Your task to perform on an android device: toggle notifications settings in the gmail app Image 0: 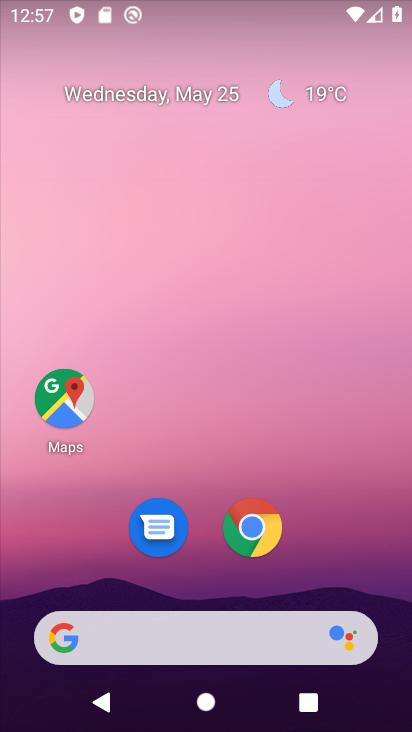
Step 0: drag from (366, 552) to (362, 122)
Your task to perform on an android device: toggle notifications settings in the gmail app Image 1: 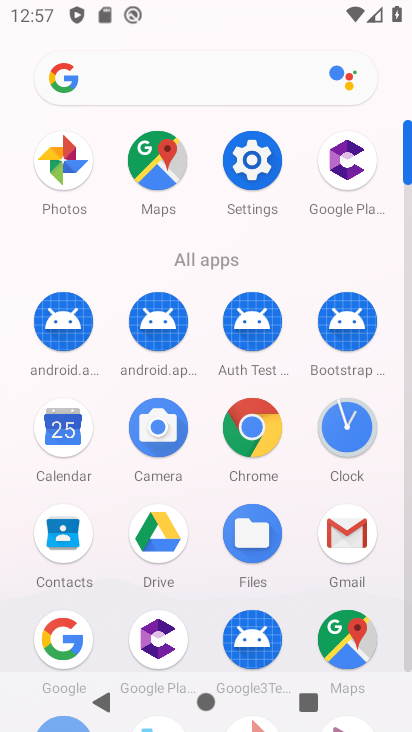
Step 1: click (355, 541)
Your task to perform on an android device: toggle notifications settings in the gmail app Image 2: 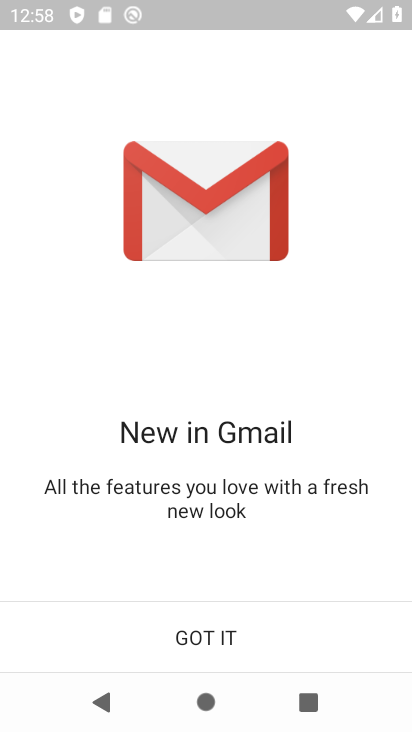
Step 2: click (276, 627)
Your task to perform on an android device: toggle notifications settings in the gmail app Image 3: 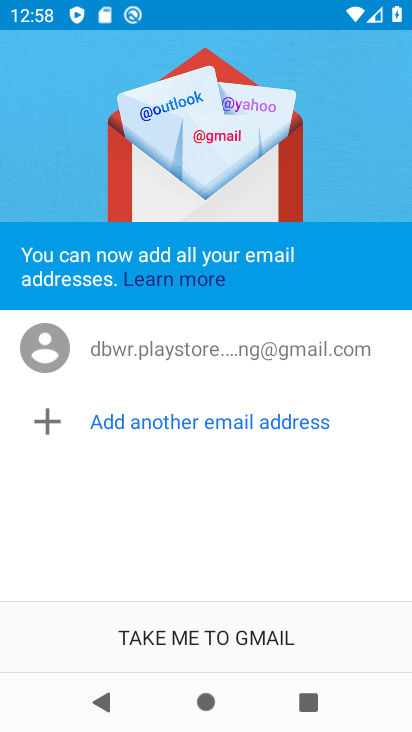
Step 3: click (276, 627)
Your task to perform on an android device: toggle notifications settings in the gmail app Image 4: 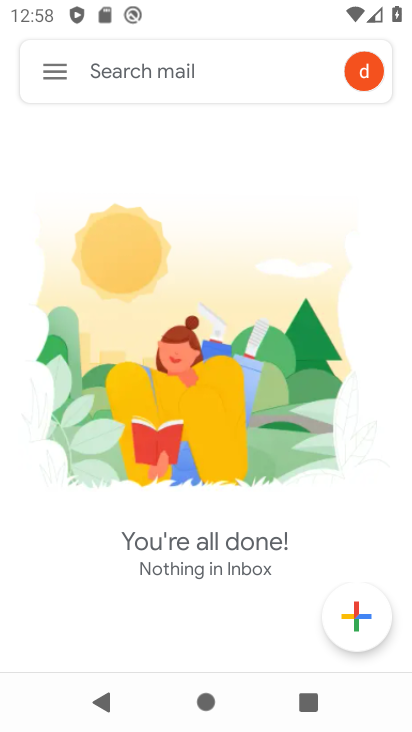
Step 4: click (59, 76)
Your task to perform on an android device: toggle notifications settings in the gmail app Image 5: 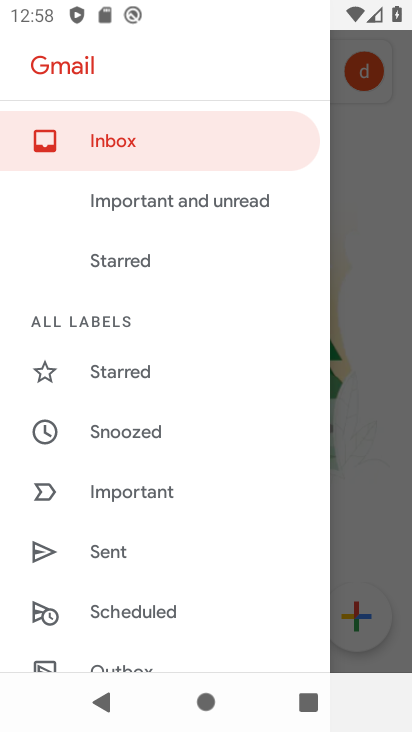
Step 5: drag from (231, 522) to (237, 412)
Your task to perform on an android device: toggle notifications settings in the gmail app Image 6: 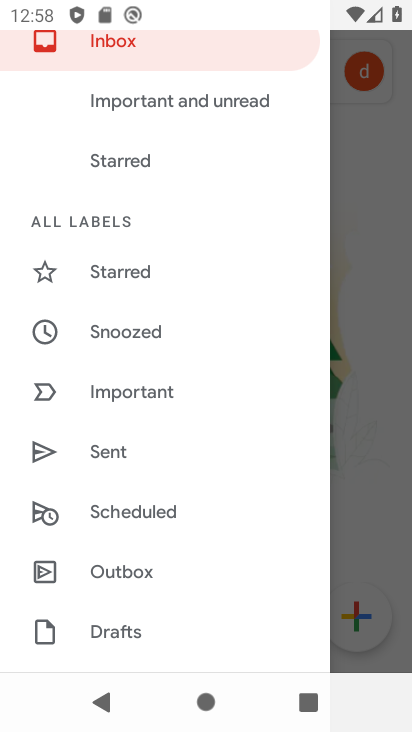
Step 6: drag from (249, 583) to (245, 498)
Your task to perform on an android device: toggle notifications settings in the gmail app Image 7: 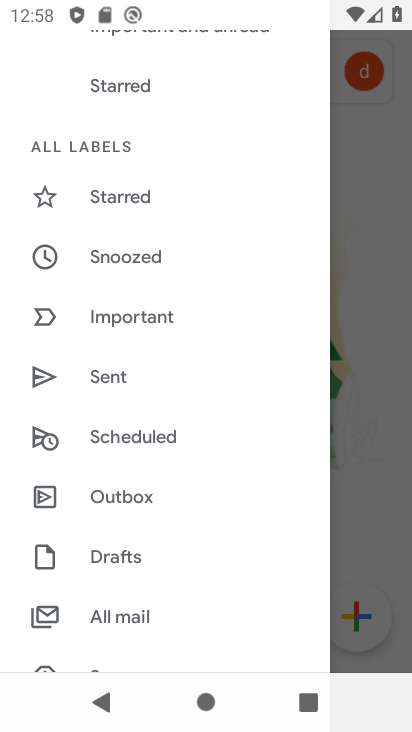
Step 7: drag from (258, 592) to (262, 501)
Your task to perform on an android device: toggle notifications settings in the gmail app Image 8: 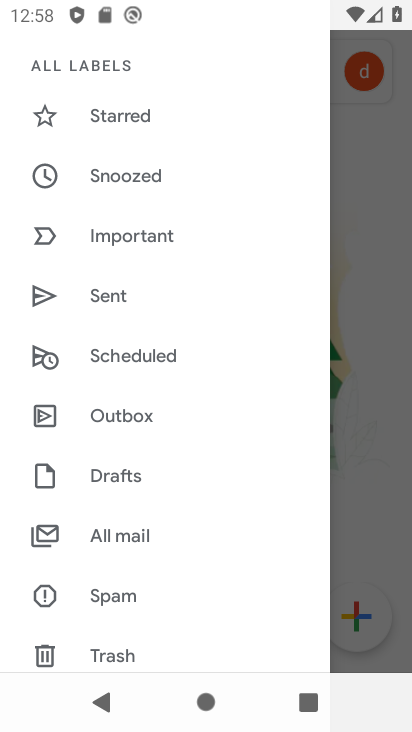
Step 8: drag from (237, 606) to (236, 514)
Your task to perform on an android device: toggle notifications settings in the gmail app Image 9: 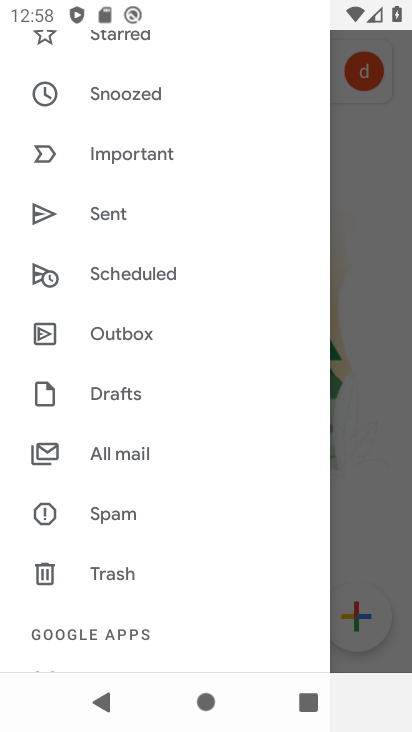
Step 9: drag from (252, 621) to (243, 522)
Your task to perform on an android device: toggle notifications settings in the gmail app Image 10: 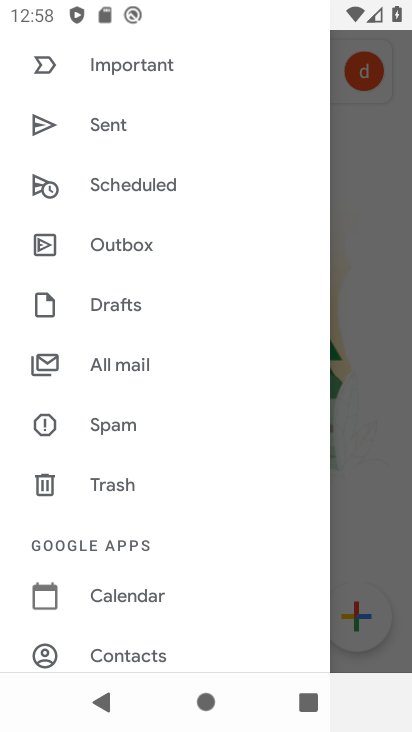
Step 10: drag from (252, 613) to (241, 502)
Your task to perform on an android device: toggle notifications settings in the gmail app Image 11: 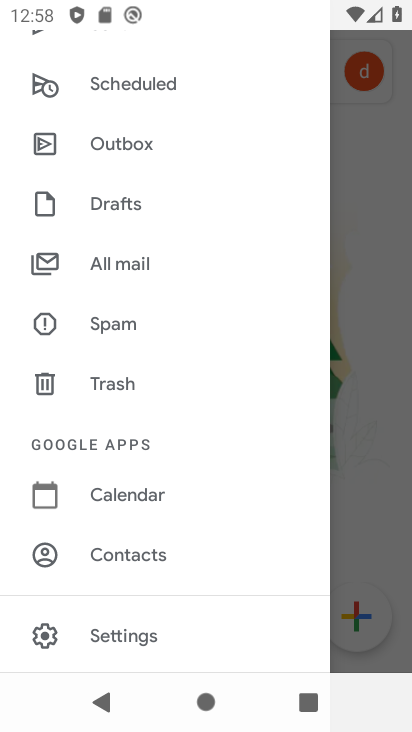
Step 11: drag from (259, 622) to (259, 534)
Your task to perform on an android device: toggle notifications settings in the gmail app Image 12: 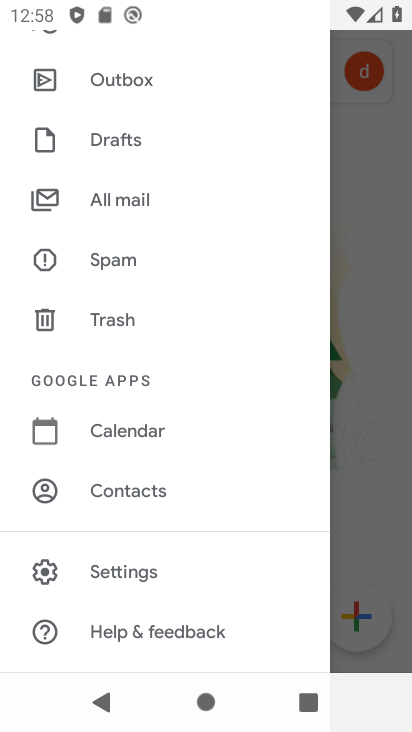
Step 12: drag from (258, 618) to (264, 531)
Your task to perform on an android device: toggle notifications settings in the gmail app Image 13: 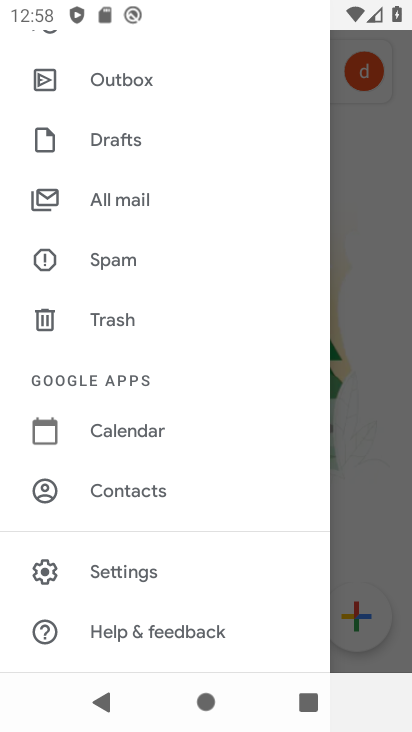
Step 13: drag from (262, 384) to (255, 494)
Your task to perform on an android device: toggle notifications settings in the gmail app Image 14: 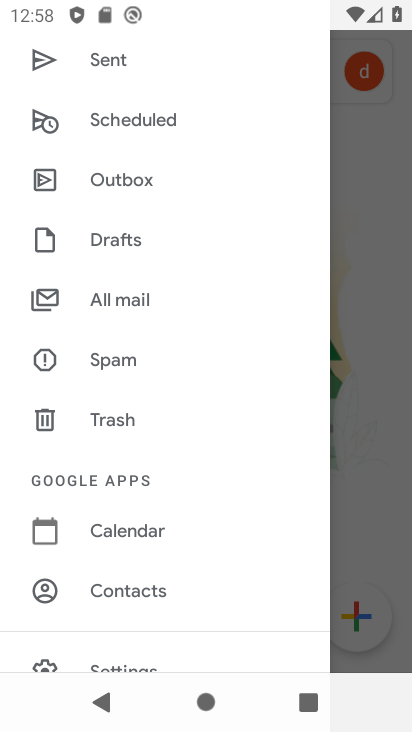
Step 14: drag from (231, 610) to (241, 469)
Your task to perform on an android device: toggle notifications settings in the gmail app Image 15: 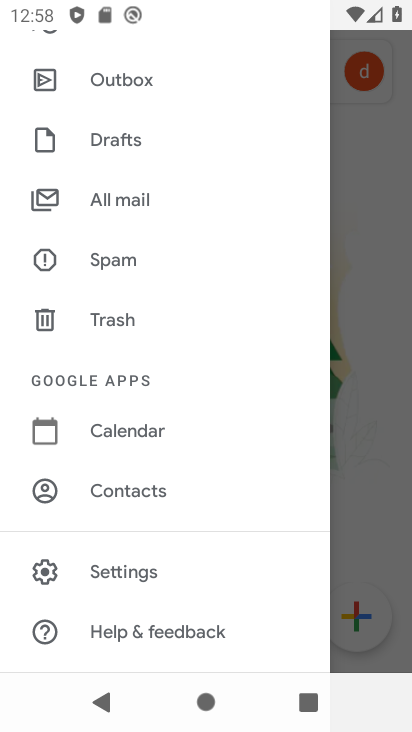
Step 15: click (201, 573)
Your task to perform on an android device: toggle notifications settings in the gmail app Image 16: 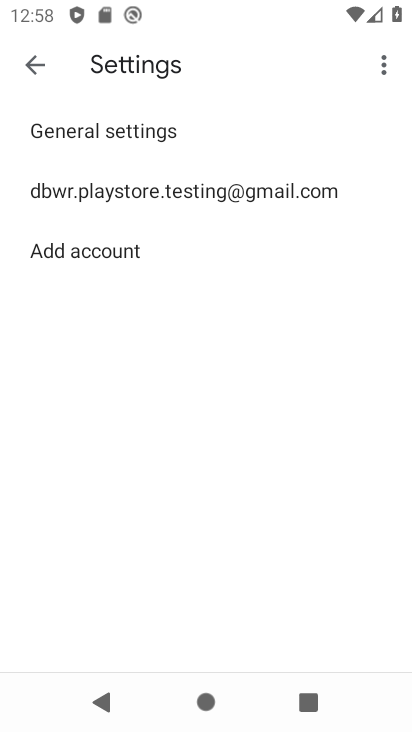
Step 16: click (324, 206)
Your task to perform on an android device: toggle notifications settings in the gmail app Image 17: 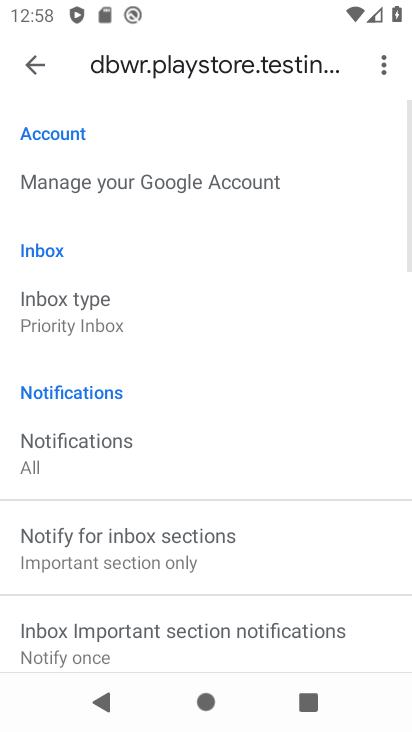
Step 17: drag from (307, 489) to (307, 390)
Your task to perform on an android device: toggle notifications settings in the gmail app Image 18: 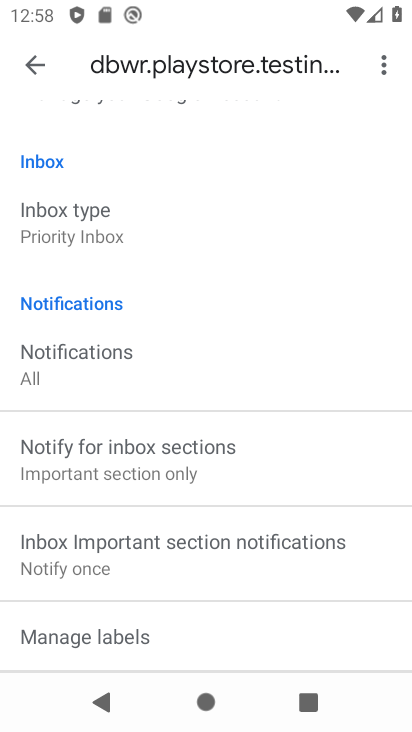
Step 18: drag from (309, 499) to (319, 401)
Your task to perform on an android device: toggle notifications settings in the gmail app Image 19: 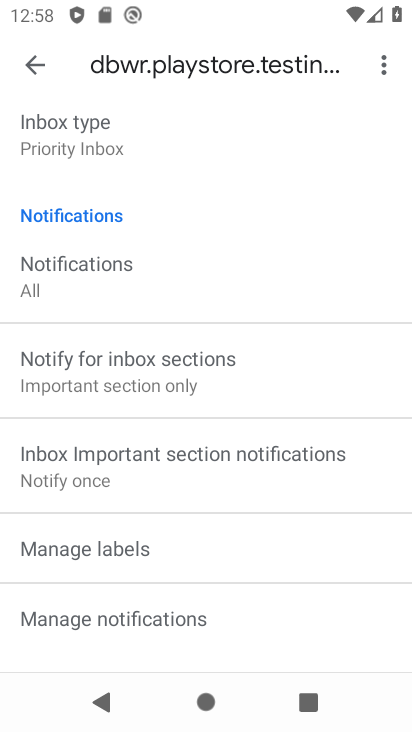
Step 19: drag from (321, 528) to (317, 432)
Your task to perform on an android device: toggle notifications settings in the gmail app Image 20: 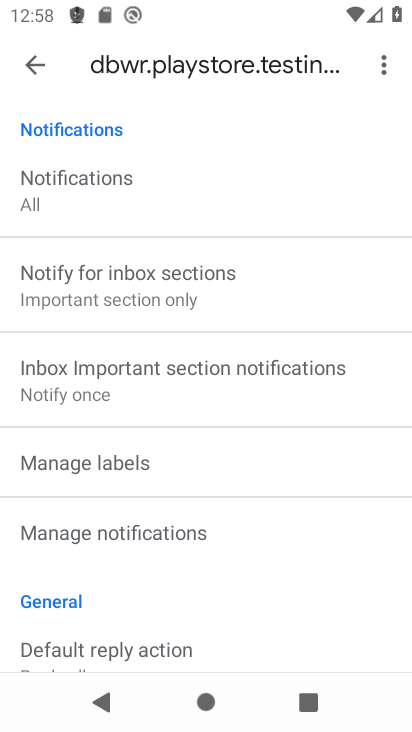
Step 20: drag from (334, 576) to (330, 468)
Your task to perform on an android device: toggle notifications settings in the gmail app Image 21: 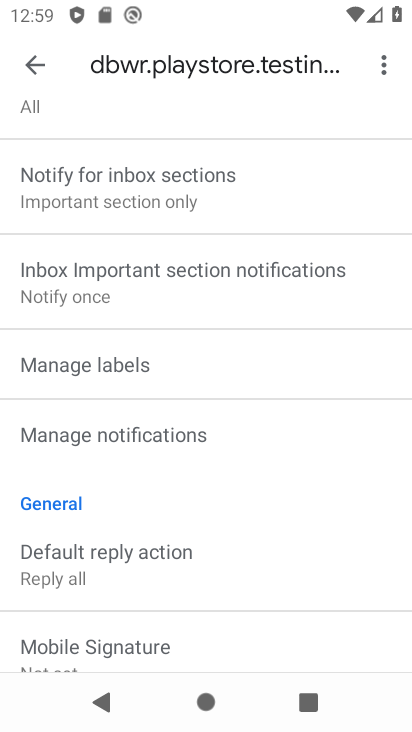
Step 21: drag from (342, 581) to (336, 475)
Your task to perform on an android device: toggle notifications settings in the gmail app Image 22: 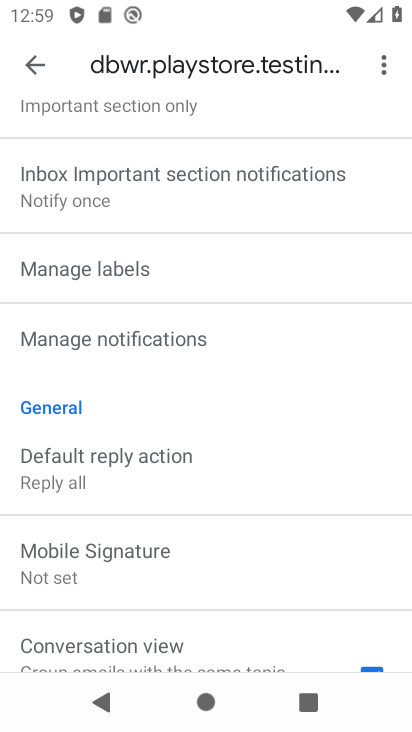
Step 22: drag from (330, 593) to (328, 463)
Your task to perform on an android device: toggle notifications settings in the gmail app Image 23: 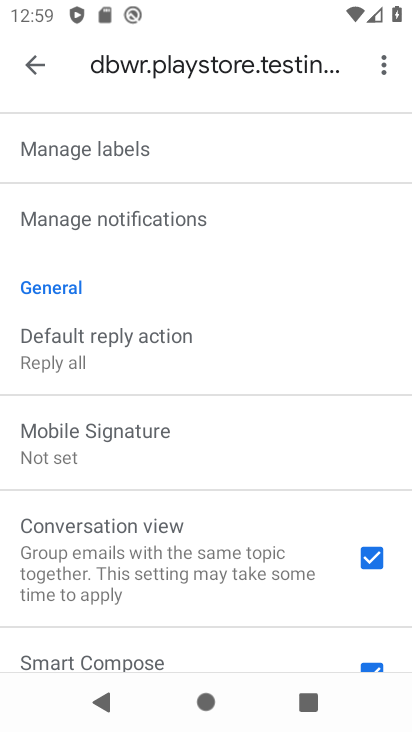
Step 23: drag from (323, 596) to (323, 478)
Your task to perform on an android device: toggle notifications settings in the gmail app Image 24: 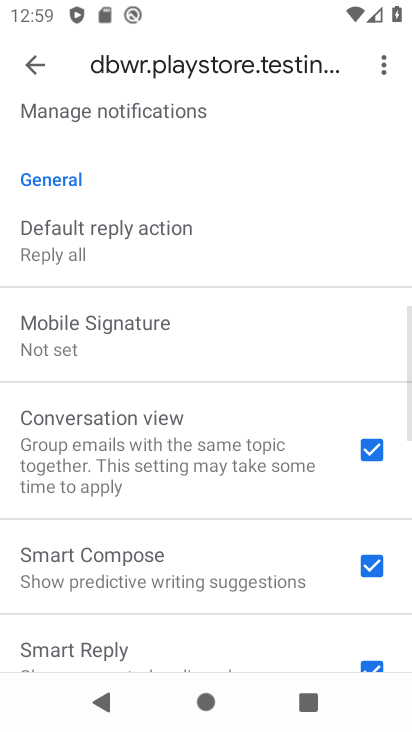
Step 24: drag from (324, 621) to (321, 494)
Your task to perform on an android device: toggle notifications settings in the gmail app Image 25: 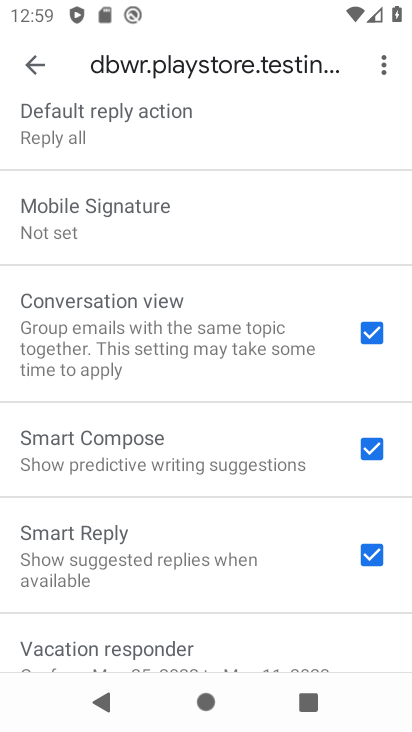
Step 25: drag from (307, 626) to (305, 476)
Your task to perform on an android device: toggle notifications settings in the gmail app Image 26: 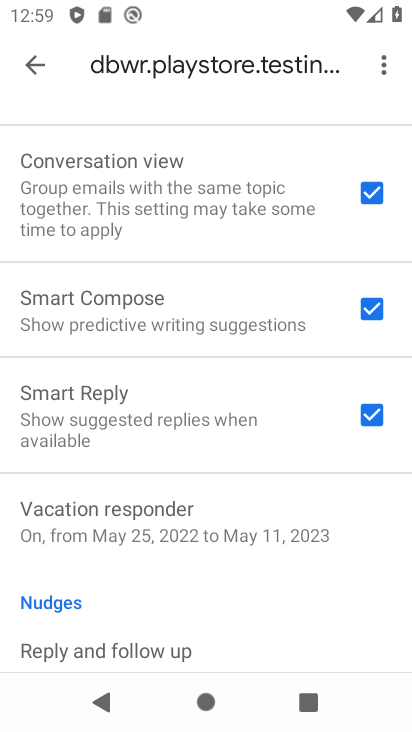
Step 26: drag from (331, 611) to (313, 477)
Your task to perform on an android device: toggle notifications settings in the gmail app Image 27: 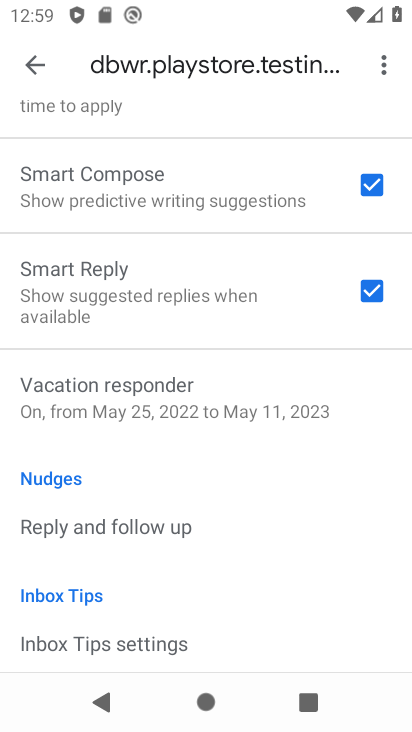
Step 27: drag from (301, 301) to (297, 410)
Your task to perform on an android device: toggle notifications settings in the gmail app Image 28: 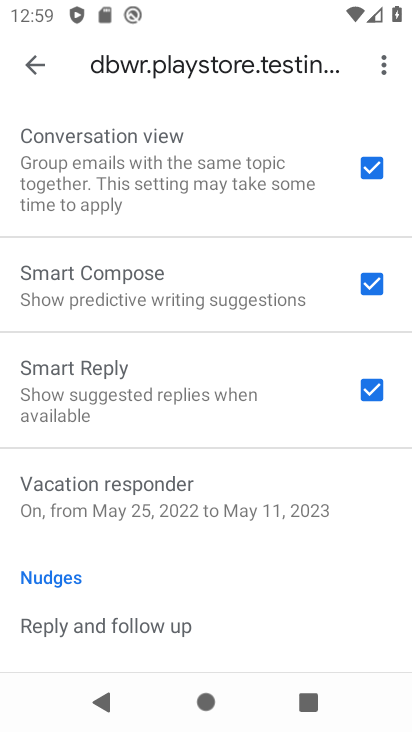
Step 28: drag from (288, 255) to (289, 345)
Your task to perform on an android device: toggle notifications settings in the gmail app Image 29: 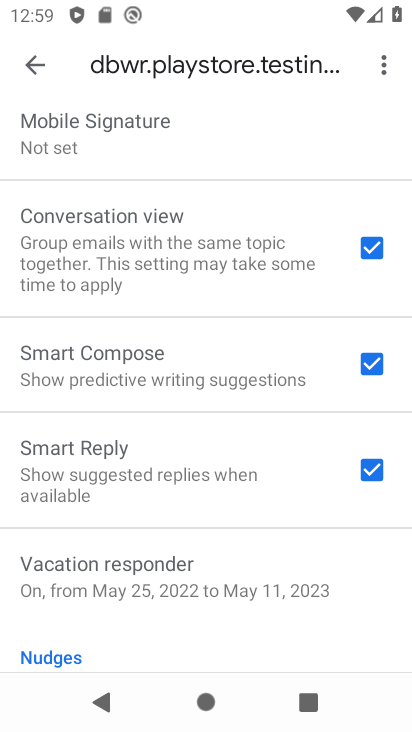
Step 29: drag from (293, 207) to (296, 315)
Your task to perform on an android device: toggle notifications settings in the gmail app Image 30: 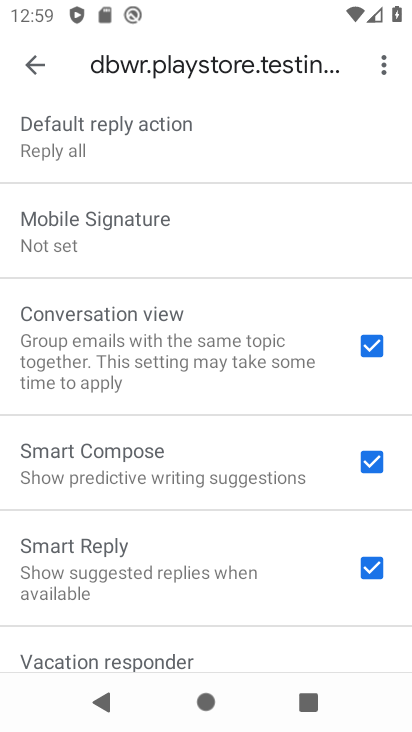
Step 30: drag from (299, 197) to (303, 297)
Your task to perform on an android device: toggle notifications settings in the gmail app Image 31: 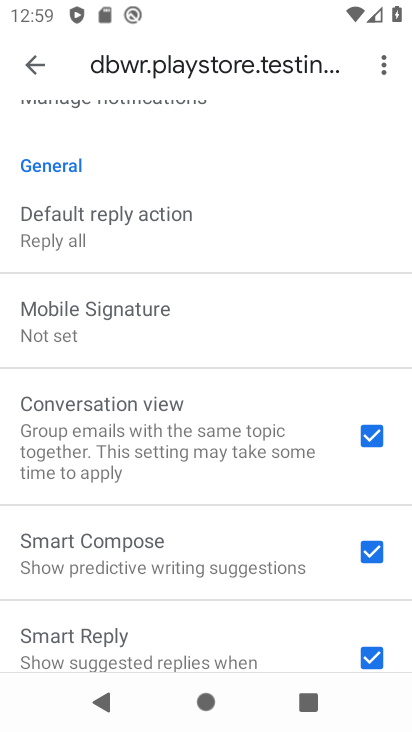
Step 31: drag from (307, 191) to (311, 323)
Your task to perform on an android device: toggle notifications settings in the gmail app Image 32: 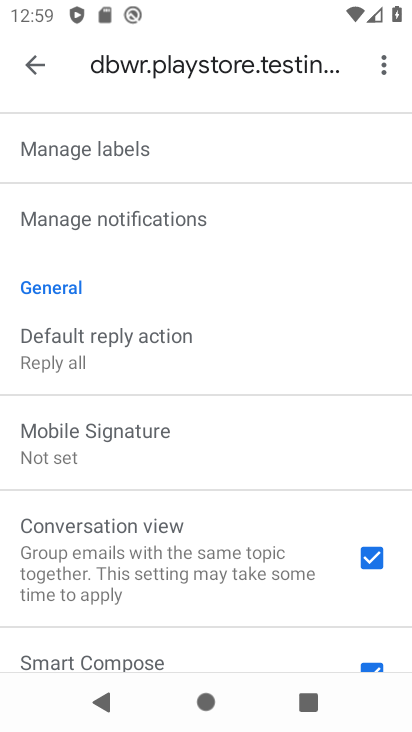
Step 32: click (201, 226)
Your task to perform on an android device: toggle notifications settings in the gmail app Image 33: 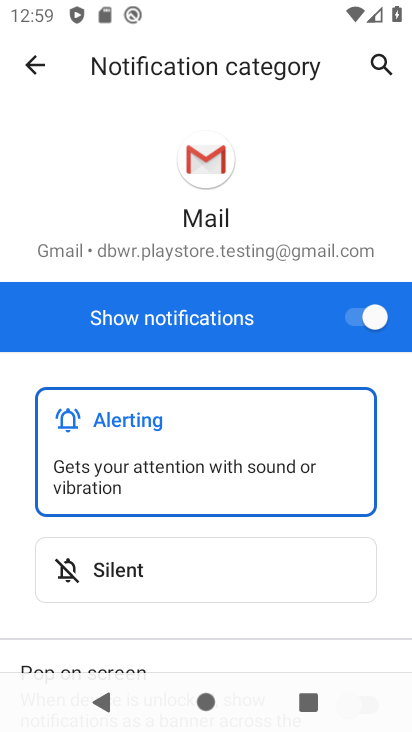
Step 33: click (381, 319)
Your task to perform on an android device: toggle notifications settings in the gmail app Image 34: 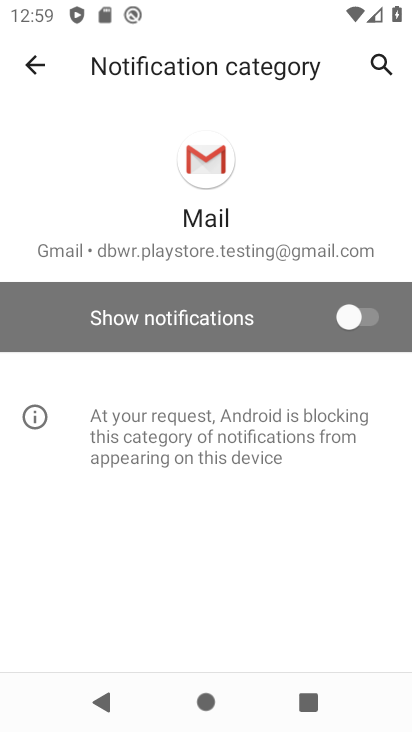
Step 34: task complete